Your task to perform on an android device: Open my contact list Image 0: 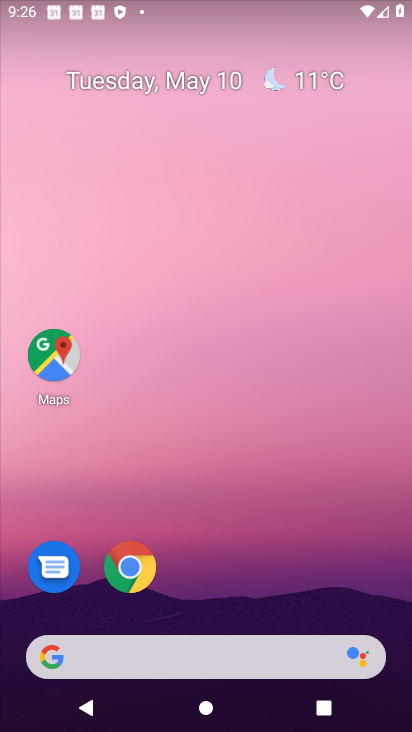
Step 0: drag from (197, 640) to (197, 168)
Your task to perform on an android device: Open my contact list Image 1: 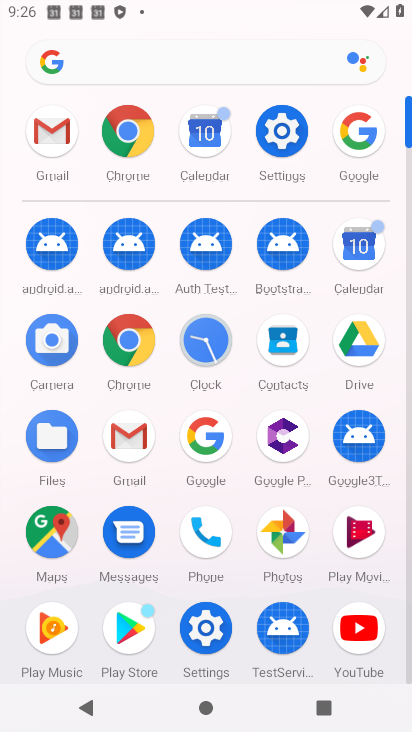
Step 1: click (286, 335)
Your task to perform on an android device: Open my contact list Image 2: 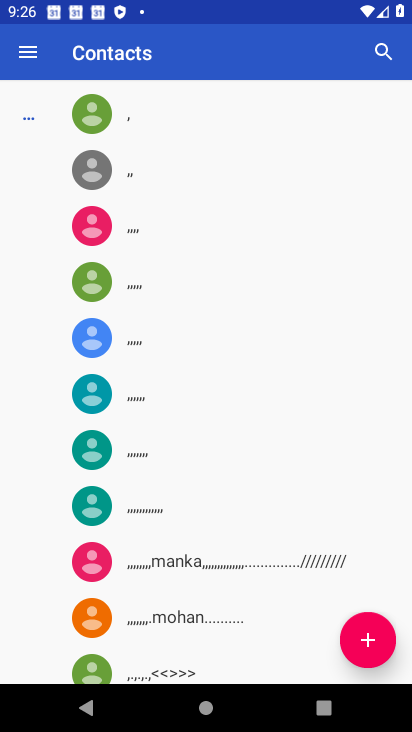
Step 2: task complete